Your task to perform on an android device: Check the weather Image 0: 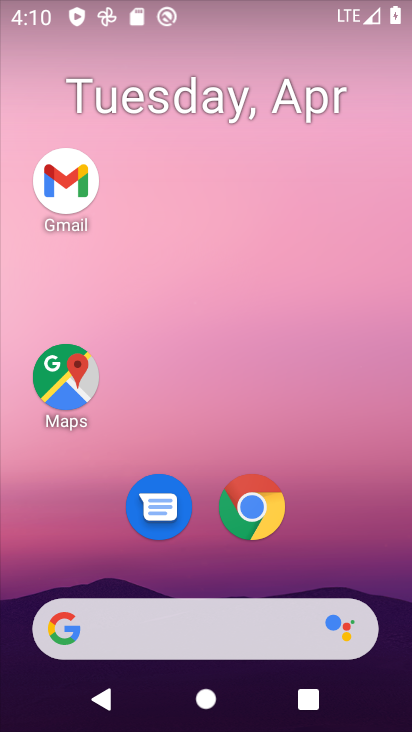
Step 0: drag from (234, 529) to (221, 88)
Your task to perform on an android device: Check the weather Image 1: 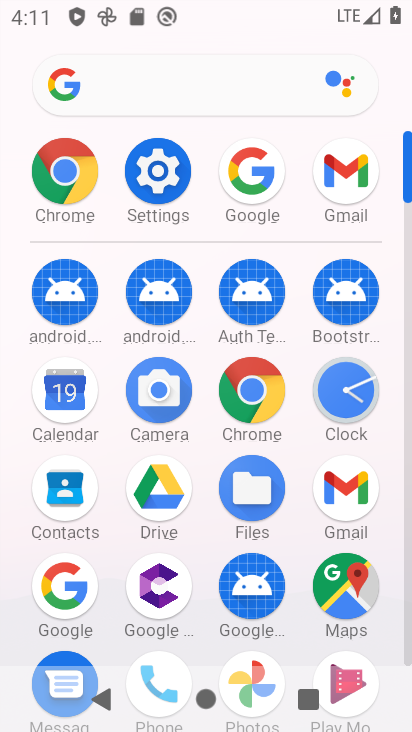
Step 1: click (61, 579)
Your task to perform on an android device: Check the weather Image 2: 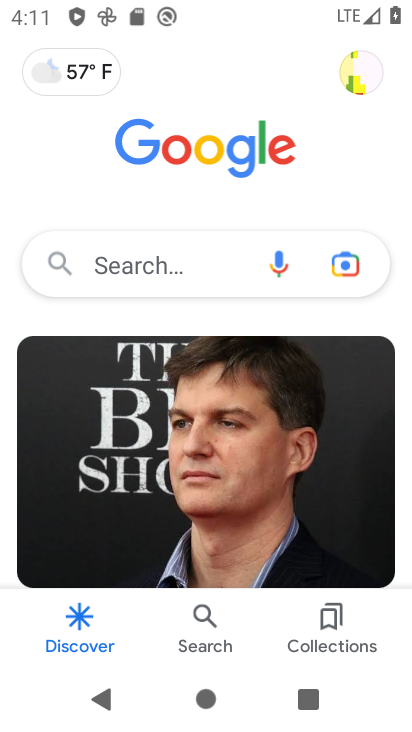
Step 2: click (39, 70)
Your task to perform on an android device: Check the weather Image 3: 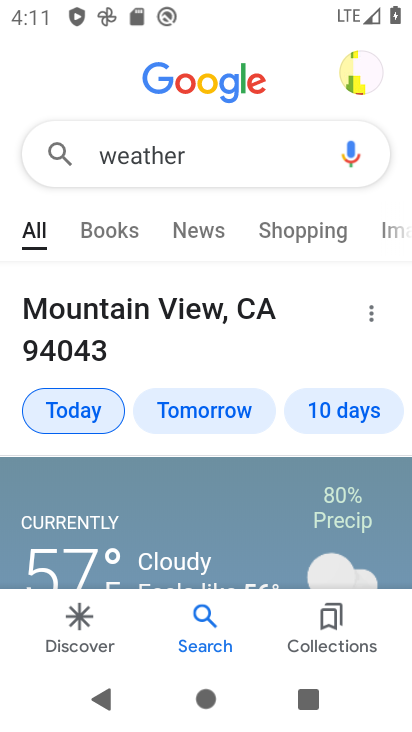
Step 3: task complete